Your task to perform on an android device: Check the weather Image 0: 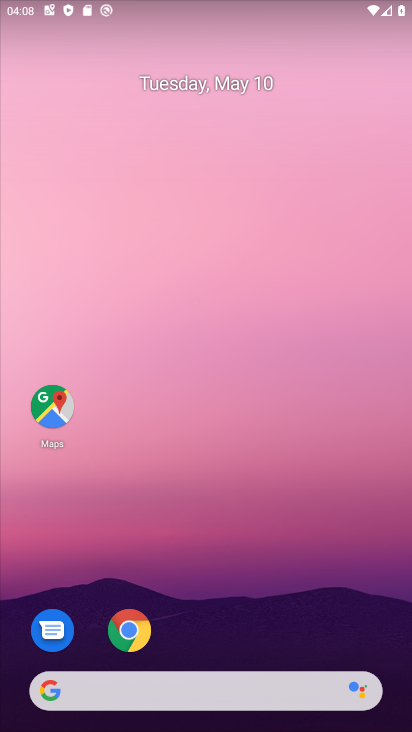
Step 0: click (181, 678)
Your task to perform on an android device: Check the weather Image 1: 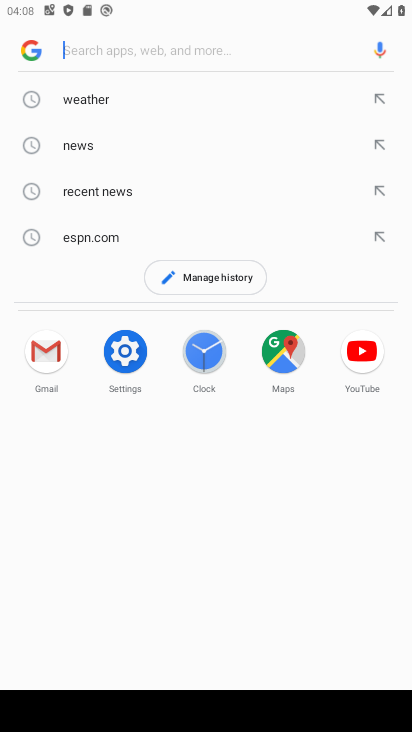
Step 1: click (95, 91)
Your task to perform on an android device: Check the weather Image 2: 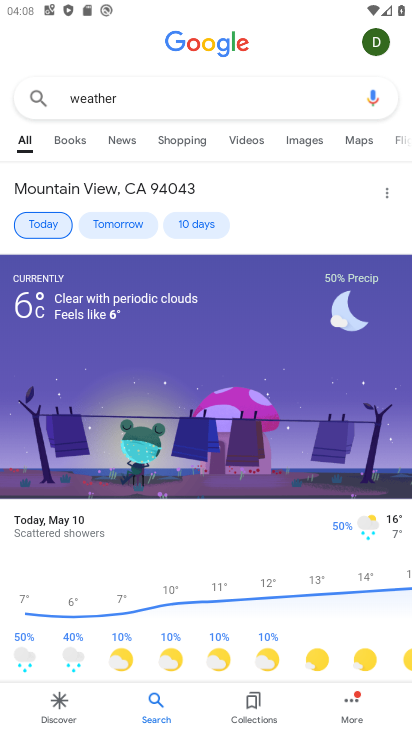
Step 2: task complete